Your task to perform on an android device: Go to ESPN.com Image 0: 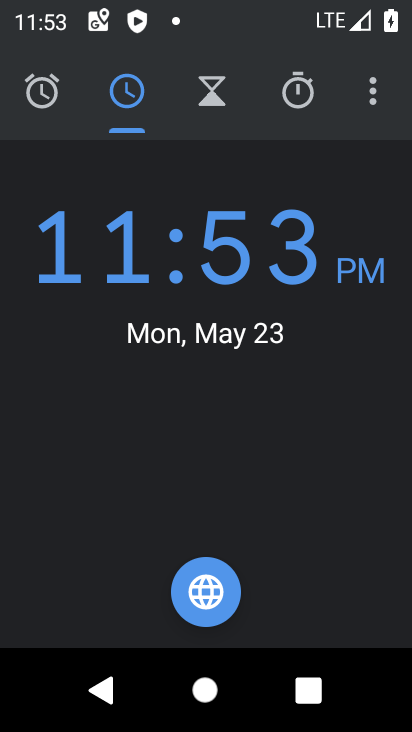
Step 0: press home button
Your task to perform on an android device: Go to ESPN.com Image 1: 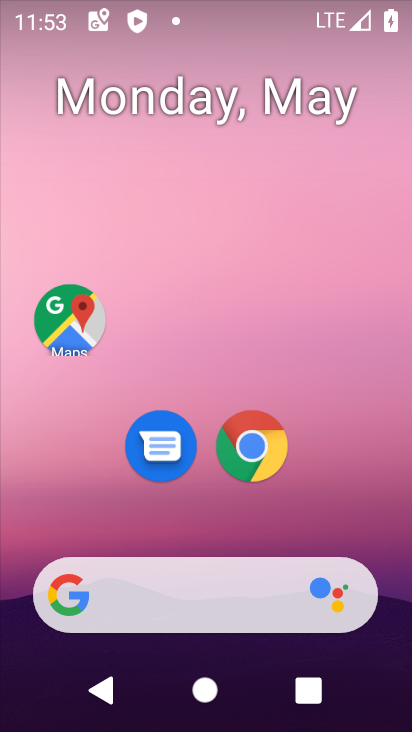
Step 1: click (268, 453)
Your task to perform on an android device: Go to ESPN.com Image 2: 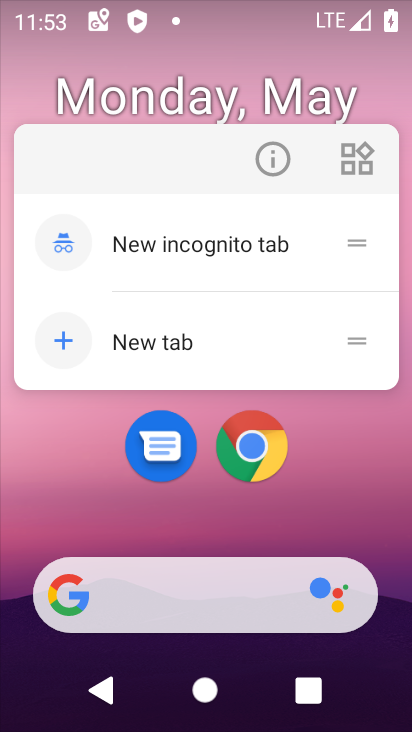
Step 2: click (268, 450)
Your task to perform on an android device: Go to ESPN.com Image 3: 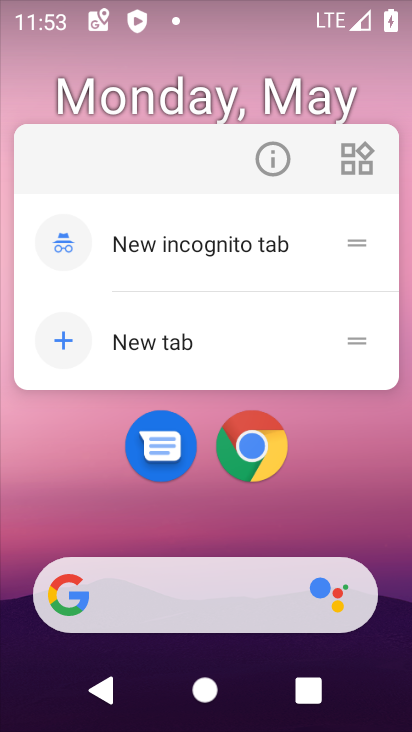
Step 3: click (268, 449)
Your task to perform on an android device: Go to ESPN.com Image 4: 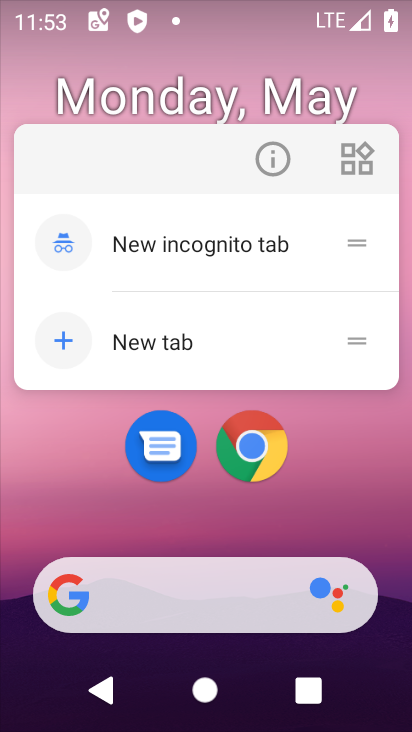
Step 4: click (268, 446)
Your task to perform on an android device: Go to ESPN.com Image 5: 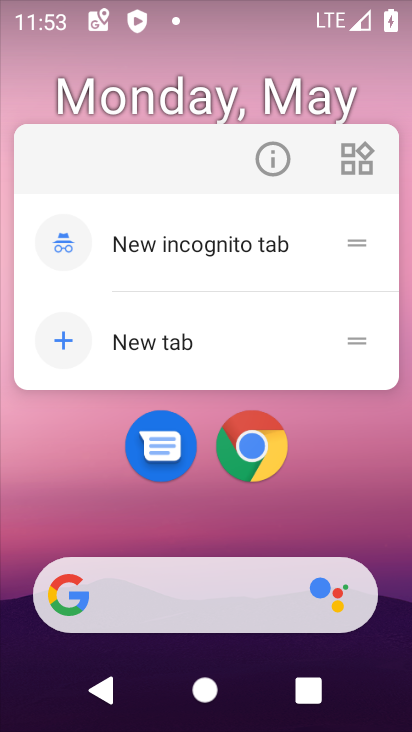
Step 5: click (346, 500)
Your task to perform on an android device: Go to ESPN.com Image 6: 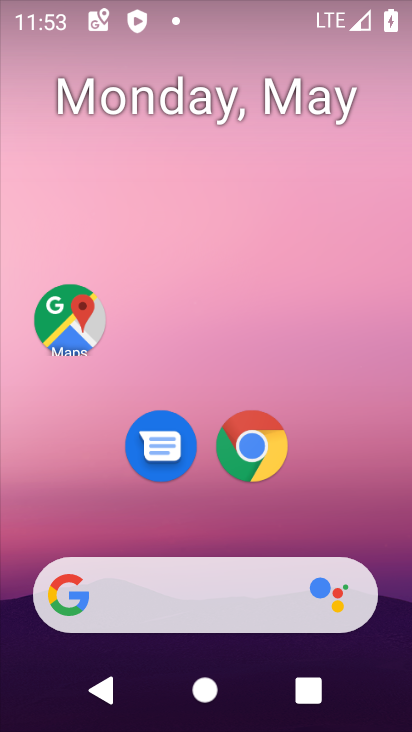
Step 6: drag from (353, 514) to (327, 6)
Your task to perform on an android device: Go to ESPN.com Image 7: 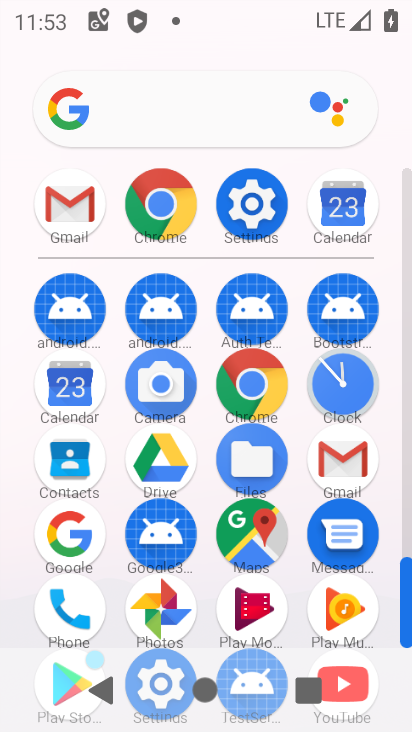
Step 7: click (166, 191)
Your task to perform on an android device: Go to ESPN.com Image 8: 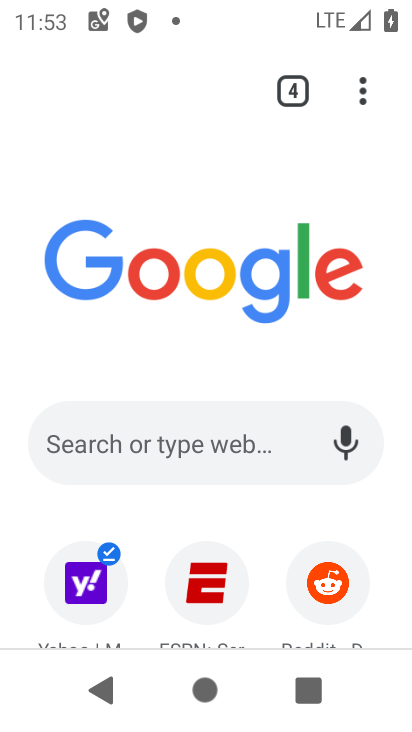
Step 8: drag from (321, 521) to (293, 190)
Your task to perform on an android device: Go to ESPN.com Image 9: 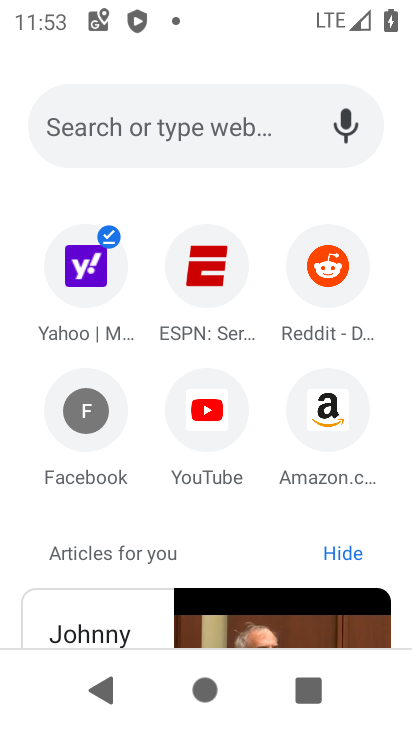
Step 9: click (199, 280)
Your task to perform on an android device: Go to ESPN.com Image 10: 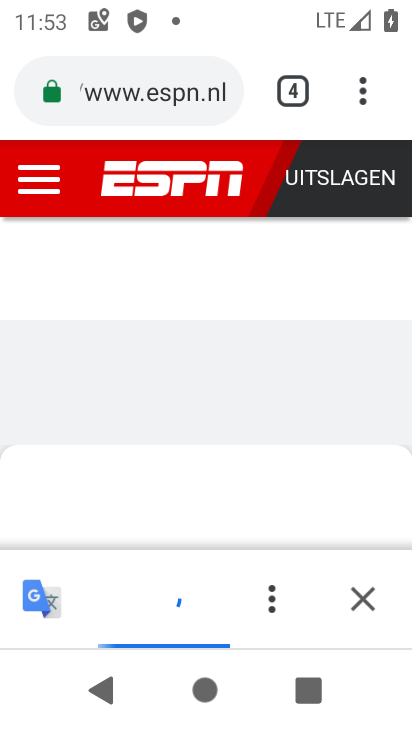
Step 10: task complete